Your task to perform on an android device: turn on priority inbox in the gmail app Image 0: 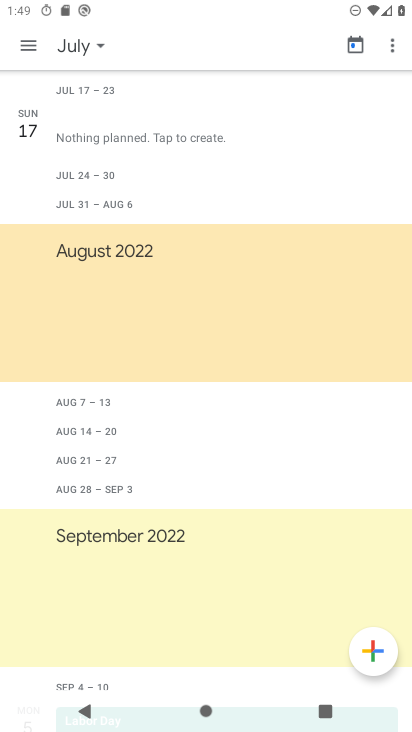
Step 0: press home button
Your task to perform on an android device: turn on priority inbox in the gmail app Image 1: 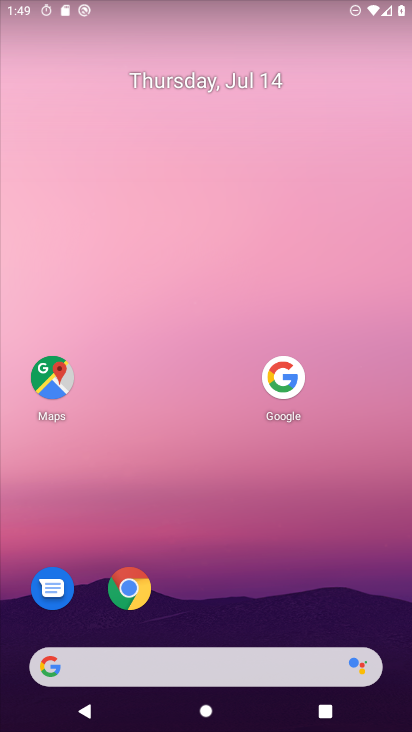
Step 1: drag from (227, 669) to (230, 223)
Your task to perform on an android device: turn on priority inbox in the gmail app Image 2: 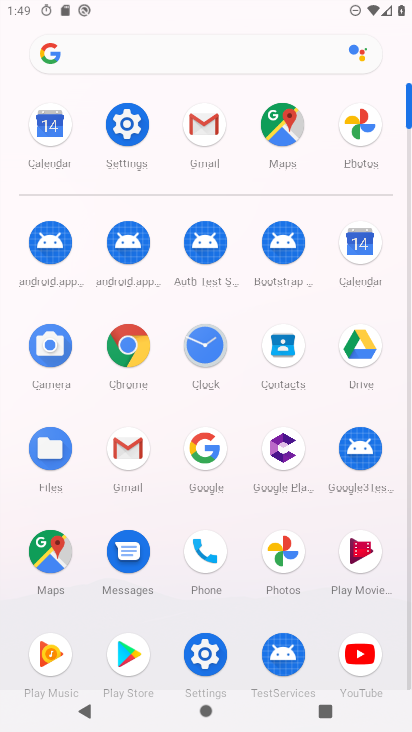
Step 2: click (206, 129)
Your task to perform on an android device: turn on priority inbox in the gmail app Image 3: 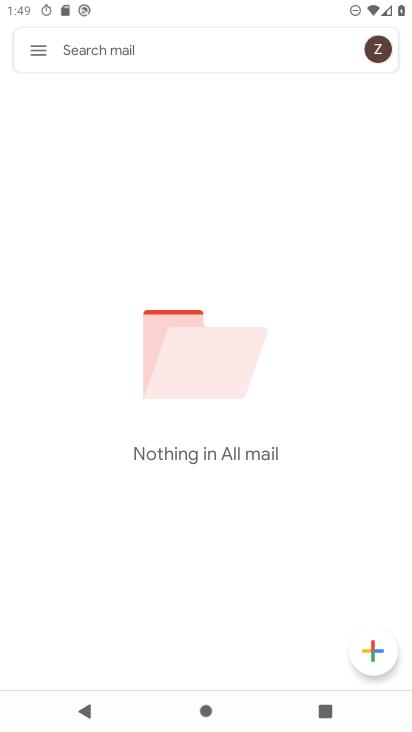
Step 3: click (43, 51)
Your task to perform on an android device: turn on priority inbox in the gmail app Image 4: 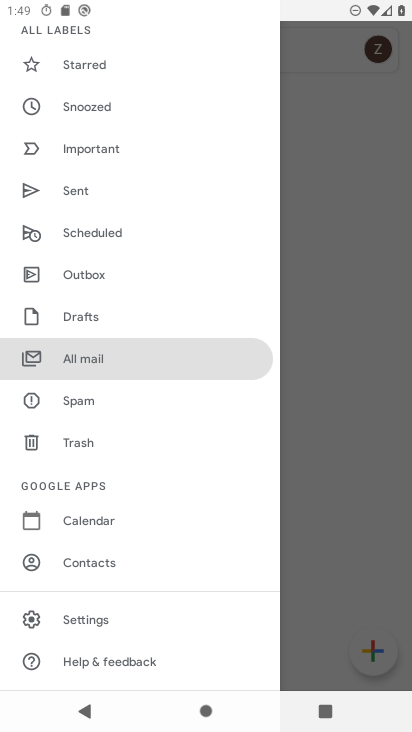
Step 4: click (116, 620)
Your task to perform on an android device: turn on priority inbox in the gmail app Image 5: 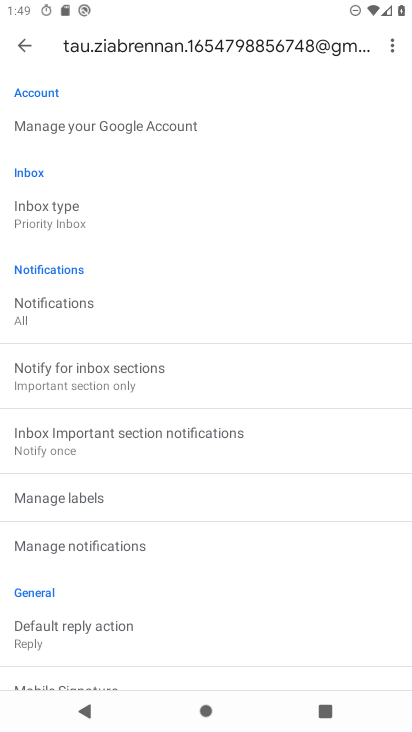
Step 5: click (63, 209)
Your task to perform on an android device: turn on priority inbox in the gmail app Image 6: 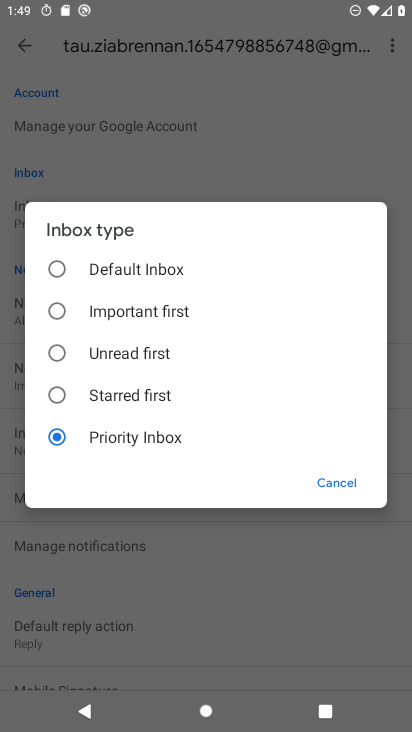
Step 6: task complete